Your task to perform on an android device: change the clock style Image 0: 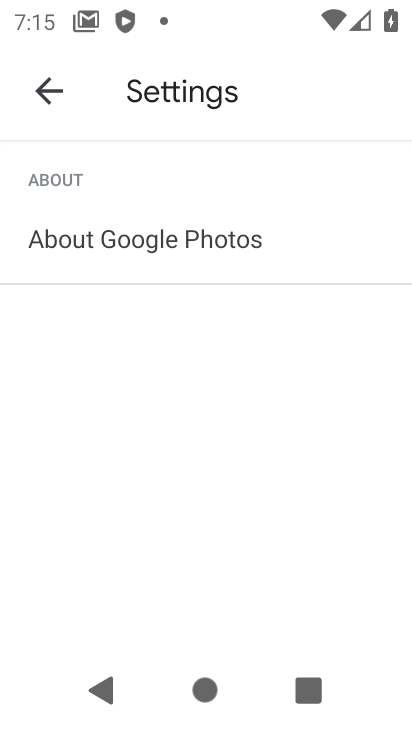
Step 0: press home button
Your task to perform on an android device: change the clock style Image 1: 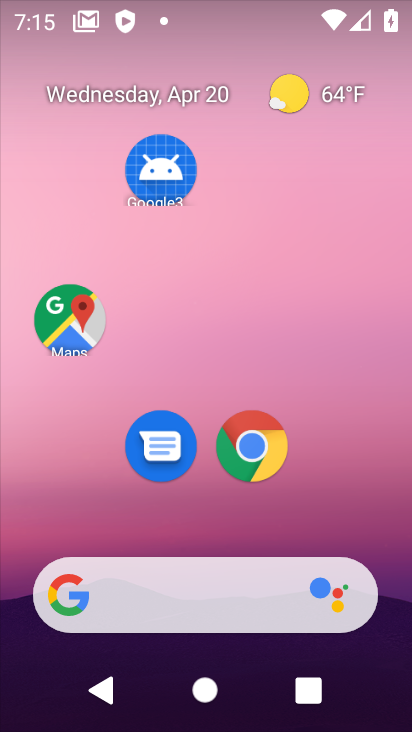
Step 1: drag from (211, 509) to (298, 18)
Your task to perform on an android device: change the clock style Image 2: 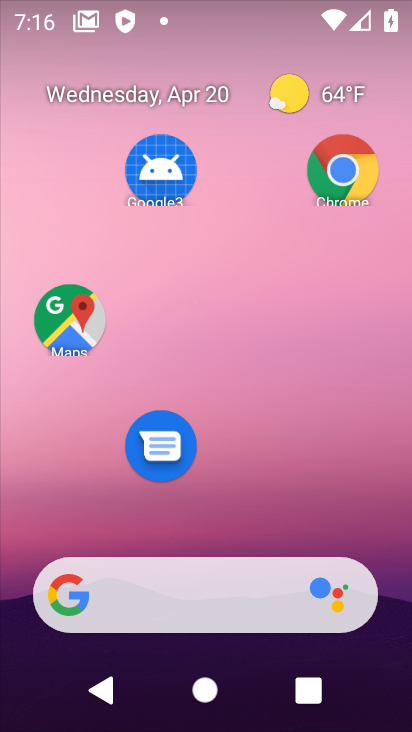
Step 2: click (252, 466)
Your task to perform on an android device: change the clock style Image 3: 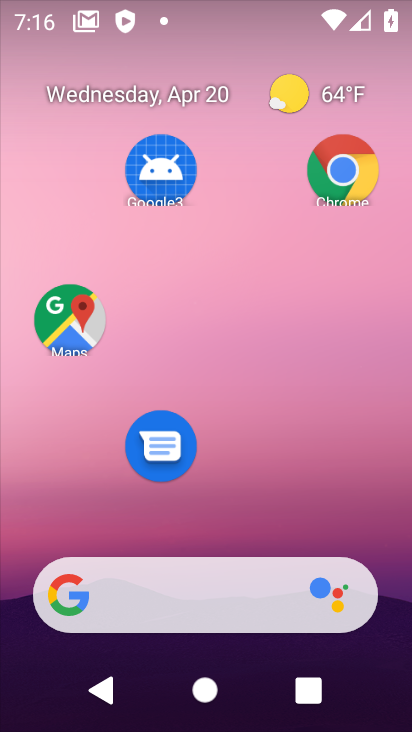
Step 3: drag from (147, 683) to (211, 127)
Your task to perform on an android device: change the clock style Image 4: 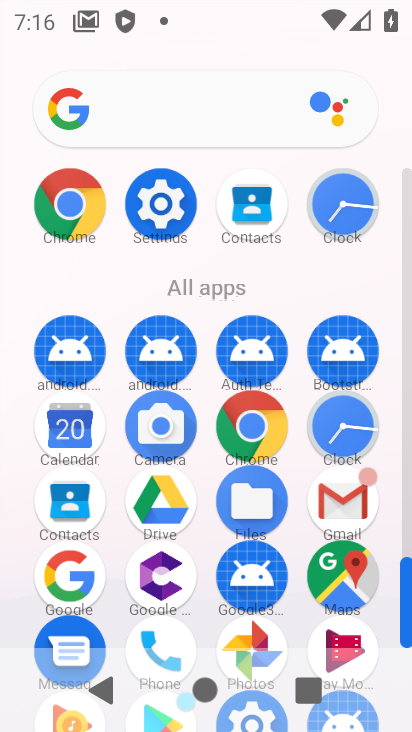
Step 4: click (339, 206)
Your task to perform on an android device: change the clock style Image 5: 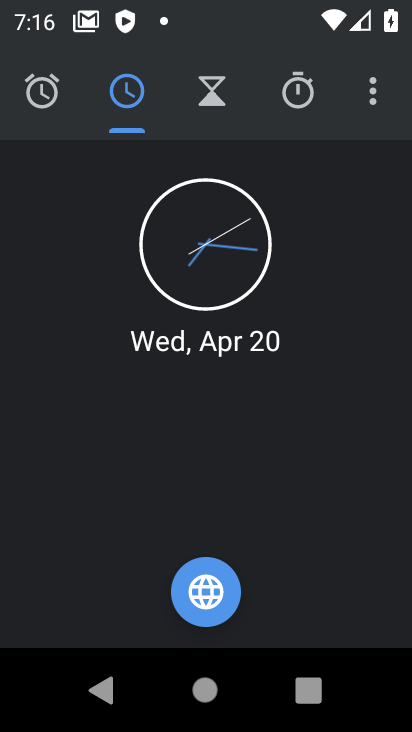
Step 5: click (339, 206)
Your task to perform on an android device: change the clock style Image 6: 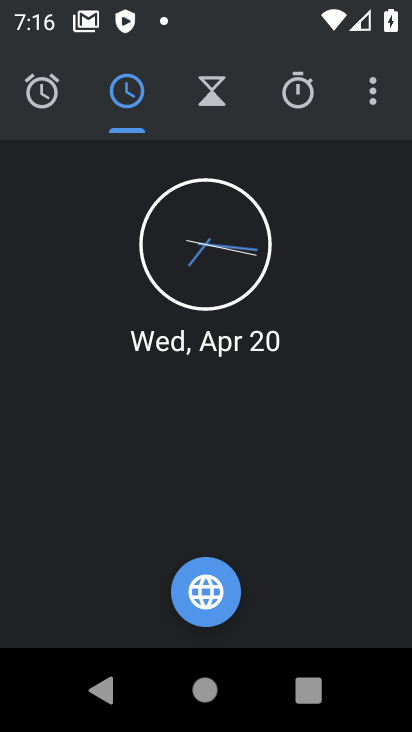
Step 6: click (370, 93)
Your task to perform on an android device: change the clock style Image 7: 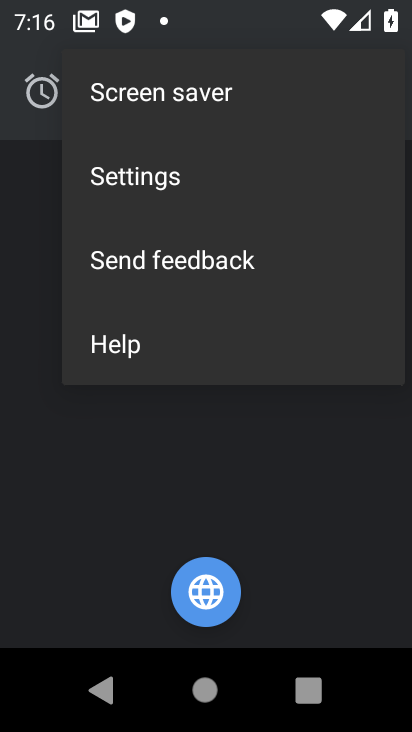
Step 7: click (152, 167)
Your task to perform on an android device: change the clock style Image 8: 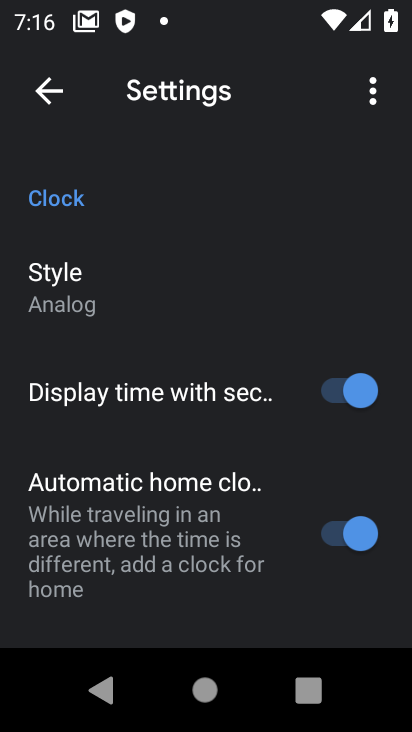
Step 8: click (62, 276)
Your task to perform on an android device: change the clock style Image 9: 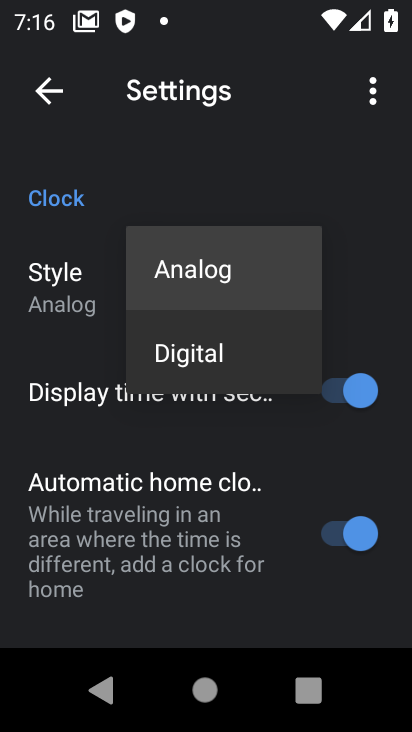
Step 9: click (192, 353)
Your task to perform on an android device: change the clock style Image 10: 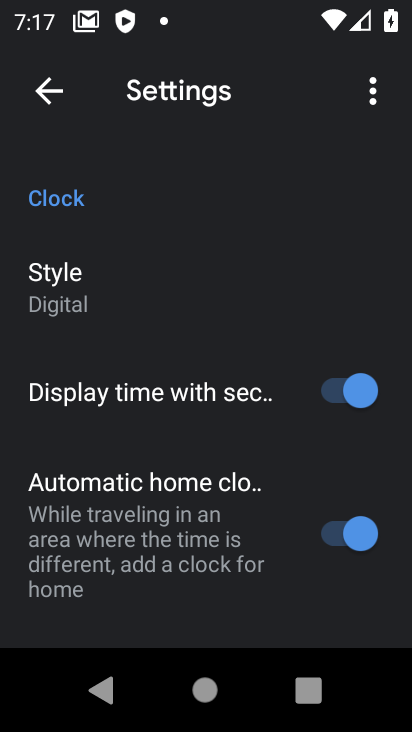
Step 10: task complete